Your task to perform on an android device: Open calendar and show me the third week of next month Image 0: 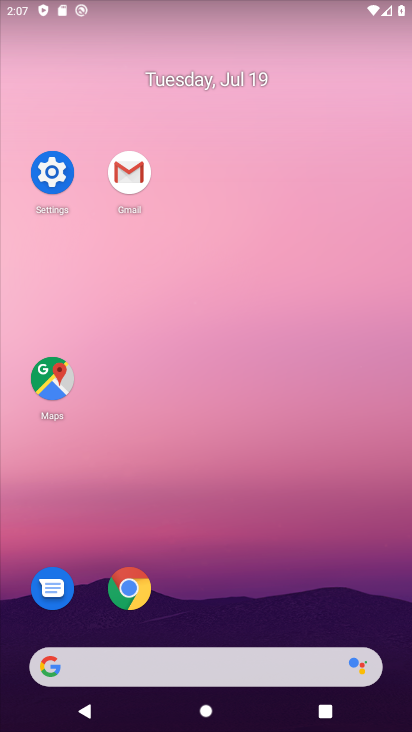
Step 0: drag from (236, 610) to (278, 145)
Your task to perform on an android device: Open calendar and show me the third week of next month Image 1: 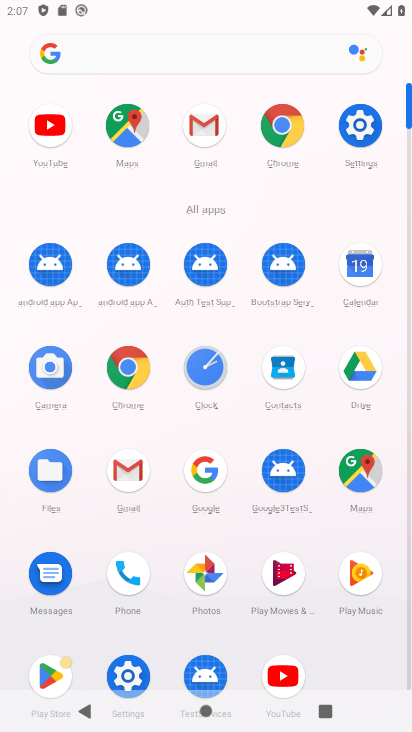
Step 1: click (358, 288)
Your task to perform on an android device: Open calendar and show me the third week of next month Image 2: 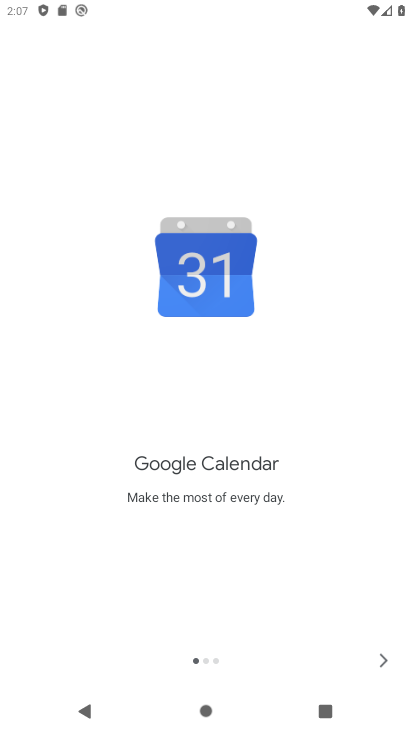
Step 2: click (391, 652)
Your task to perform on an android device: Open calendar and show me the third week of next month Image 3: 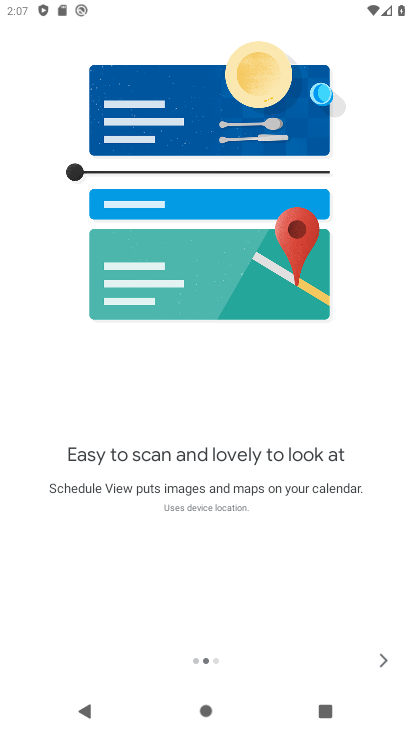
Step 3: click (391, 652)
Your task to perform on an android device: Open calendar and show me the third week of next month Image 4: 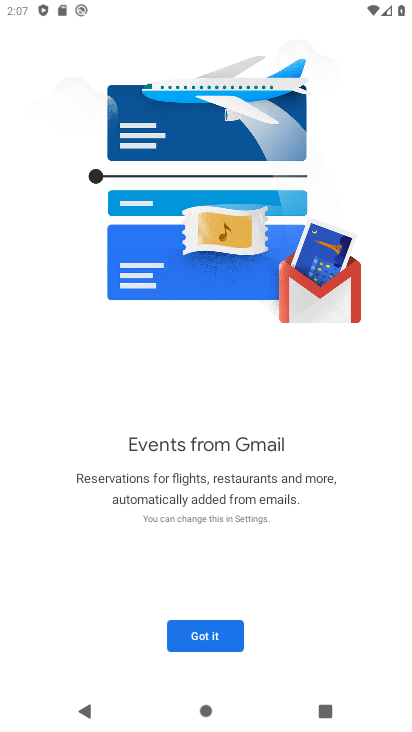
Step 4: click (391, 652)
Your task to perform on an android device: Open calendar and show me the third week of next month Image 5: 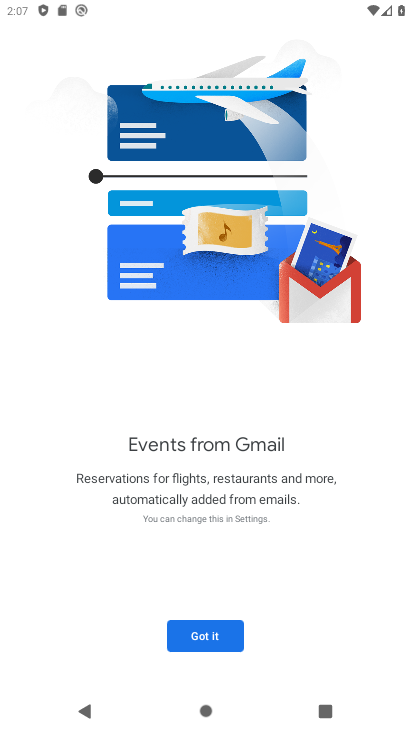
Step 5: click (231, 641)
Your task to perform on an android device: Open calendar and show me the third week of next month Image 6: 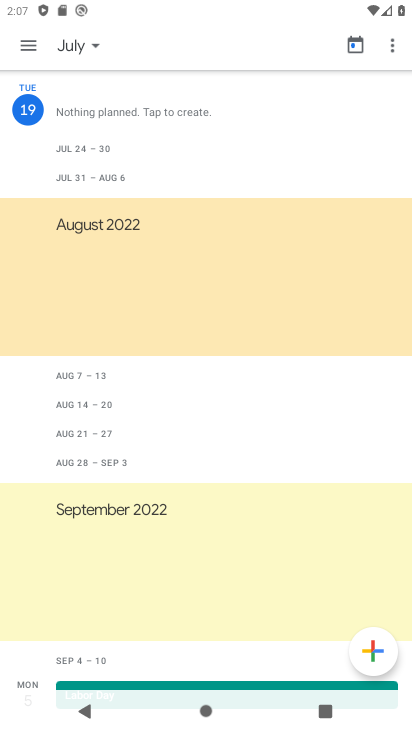
Step 6: click (77, 49)
Your task to perform on an android device: Open calendar and show me the third week of next month Image 7: 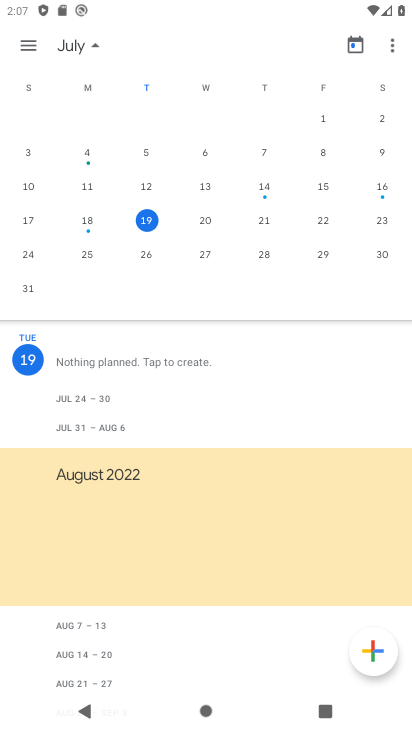
Step 7: drag from (407, 216) to (2, 72)
Your task to perform on an android device: Open calendar and show me the third week of next month Image 8: 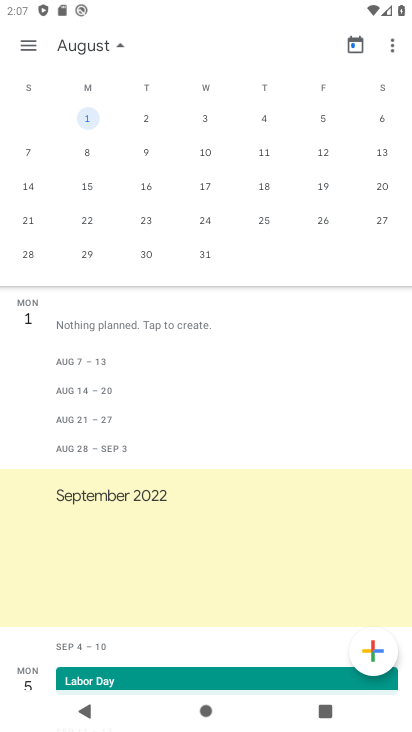
Step 8: click (25, 57)
Your task to perform on an android device: Open calendar and show me the third week of next month Image 9: 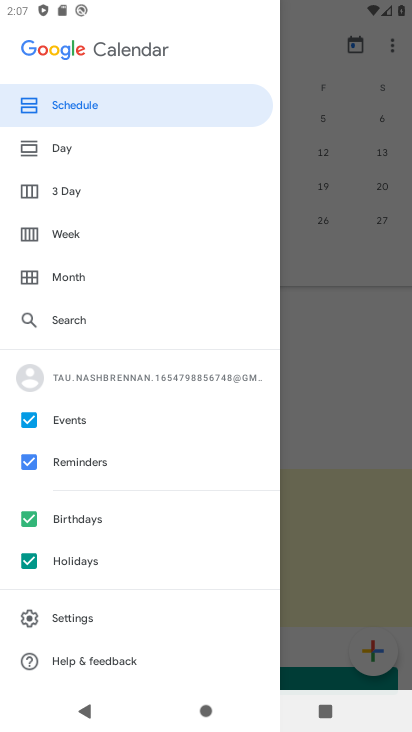
Step 9: click (87, 231)
Your task to perform on an android device: Open calendar and show me the third week of next month Image 10: 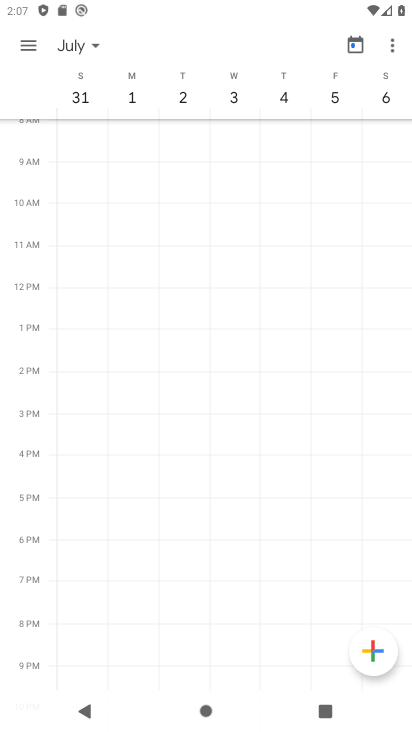
Step 10: task complete